Your task to perform on an android device: change alarm snooze length Image 0: 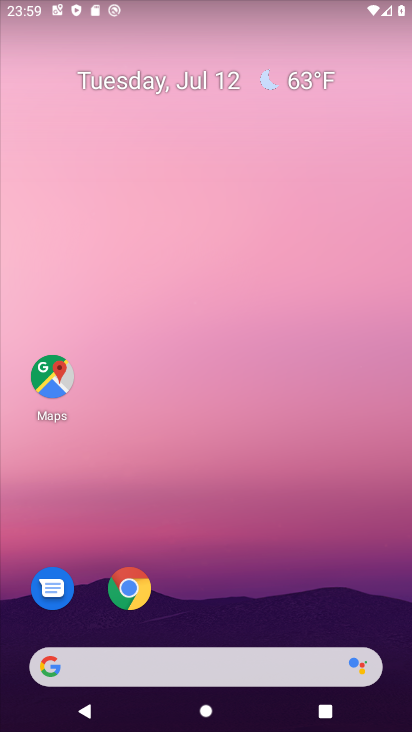
Step 0: click (178, 223)
Your task to perform on an android device: change alarm snooze length Image 1: 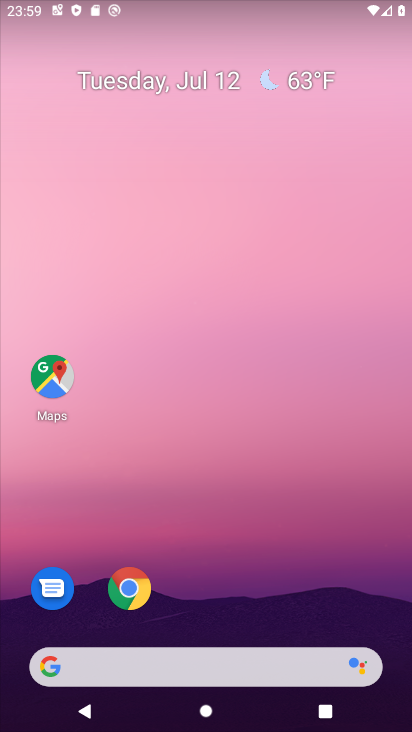
Step 1: drag from (51, 675) to (150, 227)
Your task to perform on an android device: change alarm snooze length Image 2: 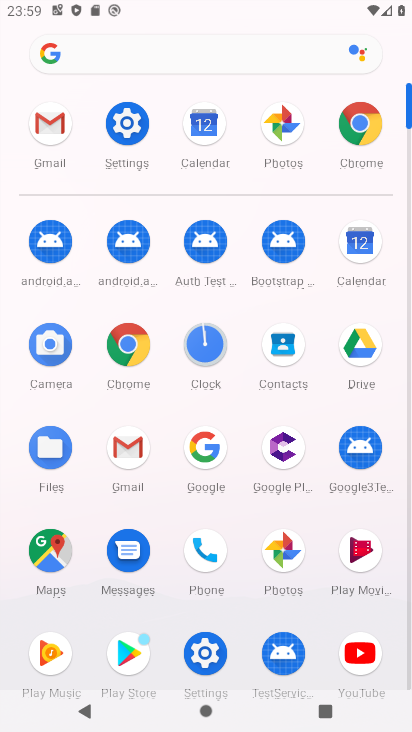
Step 2: click (211, 353)
Your task to perform on an android device: change alarm snooze length Image 3: 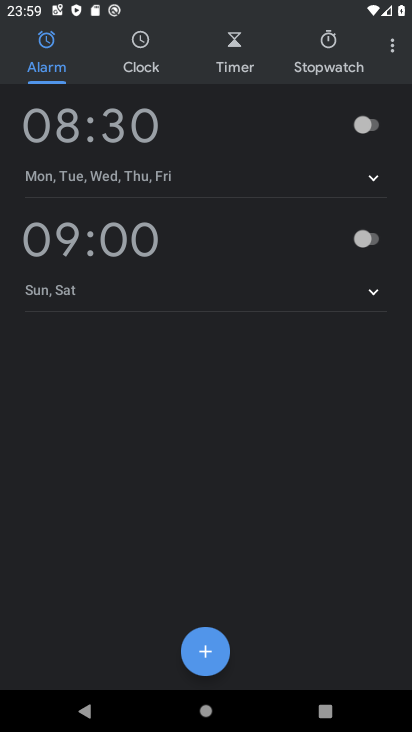
Step 3: click (397, 45)
Your task to perform on an android device: change alarm snooze length Image 4: 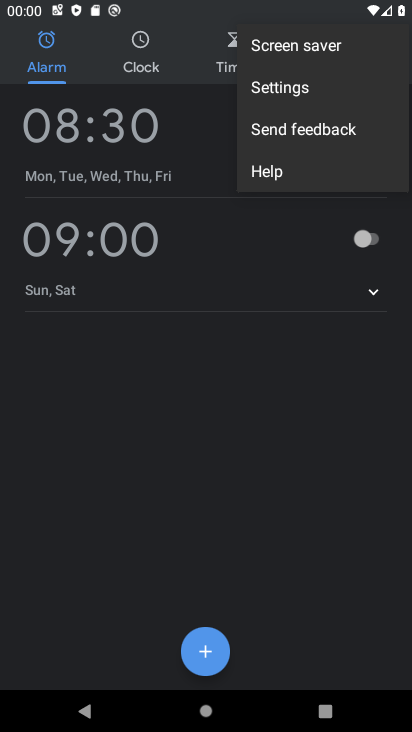
Step 4: click (276, 93)
Your task to perform on an android device: change alarm snooze length Image 5: 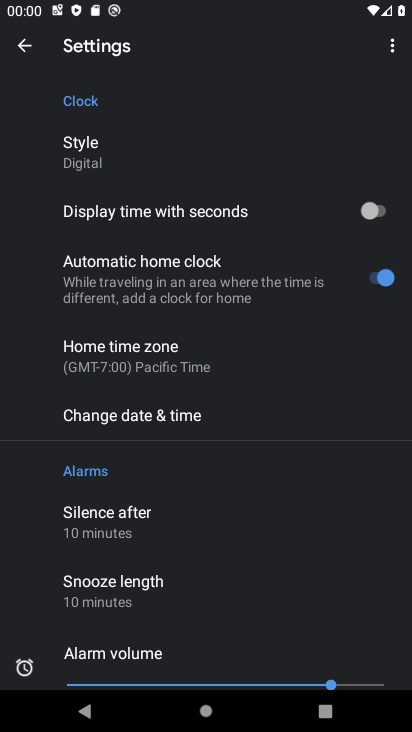
Step 5: click (119, 589)
Your task to perform on an android device: change alarm snooze length Image 6: 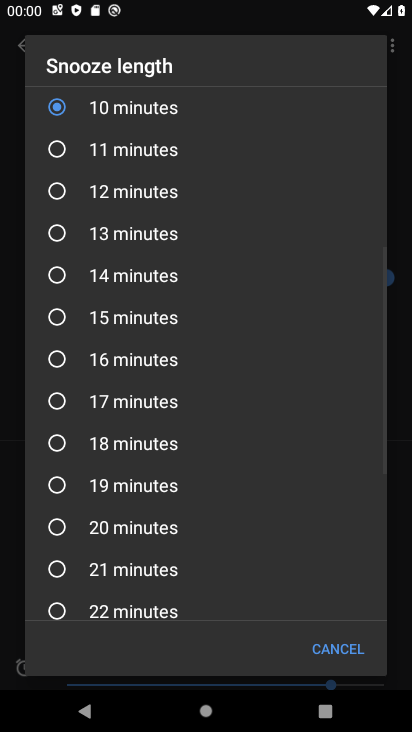
Step 6: click (59, 320)
Your task to perform on an android device: change alarm snooze length Image 7: 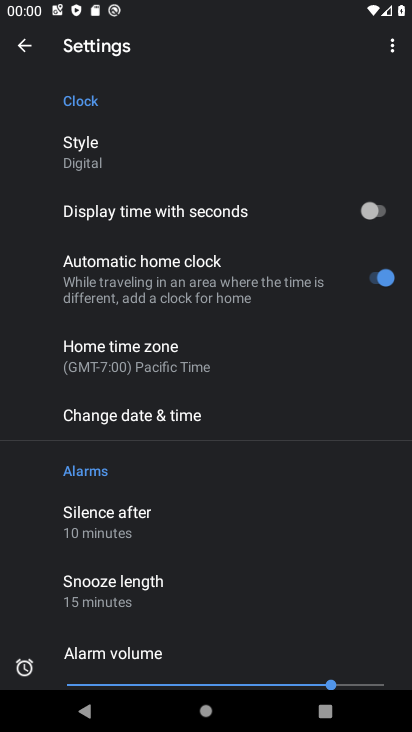
Step 7: task complete